Your task to perform on an android device: read, delete, or share a saved page in the chrome app Image 0: 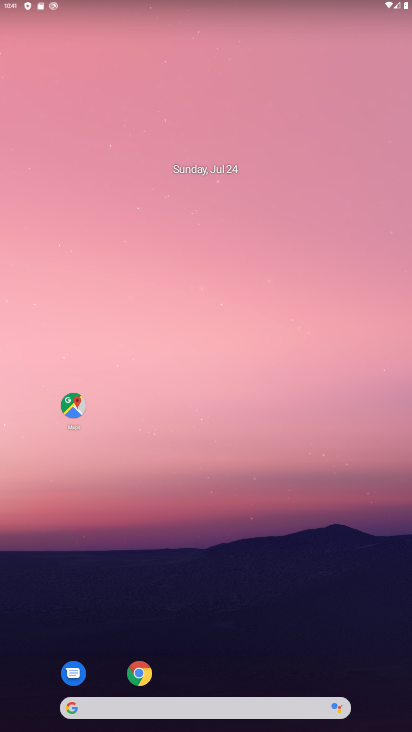
Step 0: drag from (275, 534) to (220, 91)
Your task to perform on an android device: read, delete, or share a saved page in the chrome app Image 1: 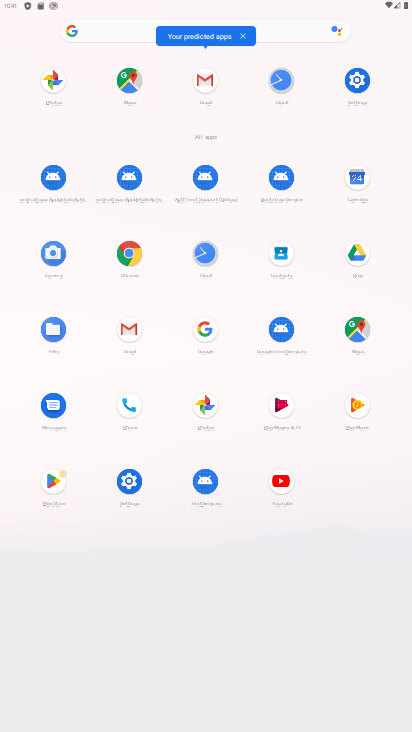
Step 1: click (125, 256)
Your task to perform on an android device: read, delete, or share a saved page in the chrome app Image 2: 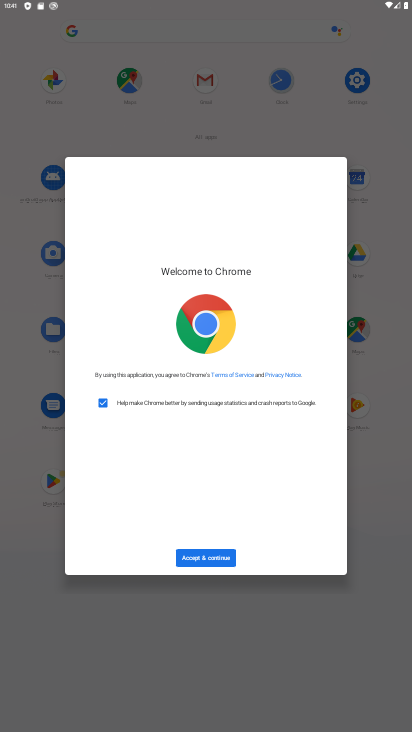
Step 2: click (195, 557)
Your task to perform on an android device: read, delete, or share a saved page in the chrome app Image 3: 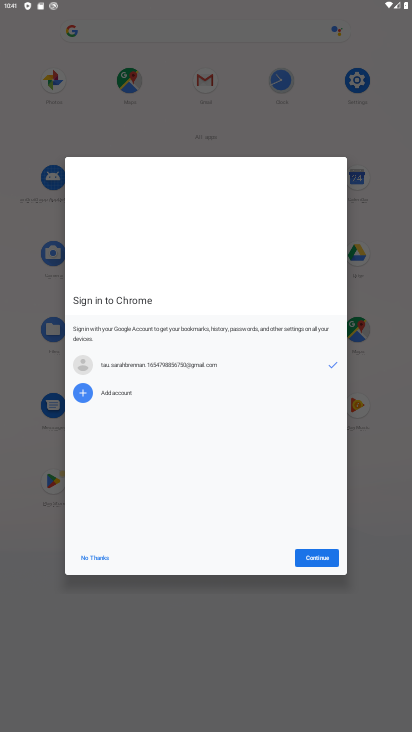
Step 3: click (94, 547)
Your task to perform on an android device: read, delete, or share a saved page in the chrome app Image 4: 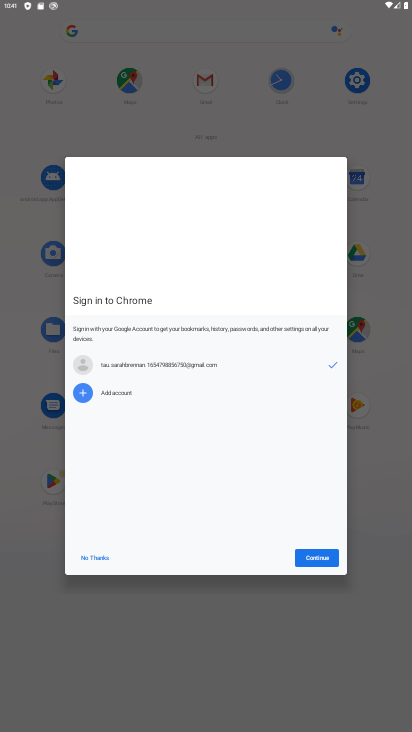
Step 4: click (91, 556)
Your task to perform on an android device: read, delete, or share a saved page in the chrome app Image 5: 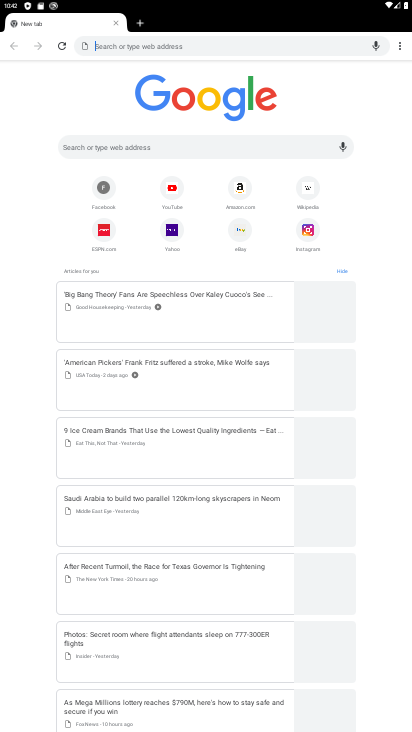
Step 5: task complete